Your task to perform on an android device: see sites visited before in the chrome app Image 0: 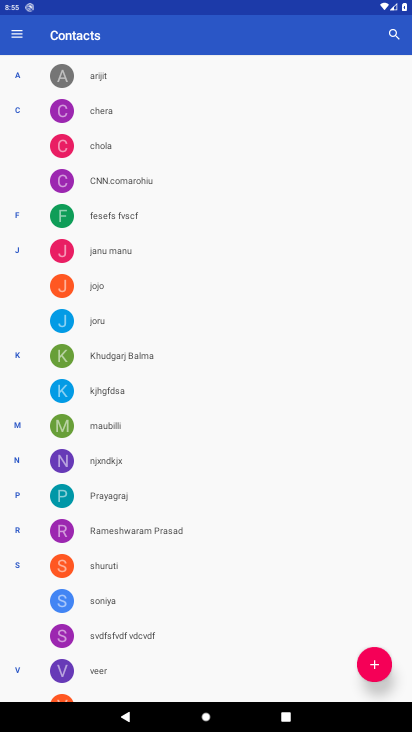
Step 0: task complete